Your task to perform on an android device: toggle wifi Image 0: 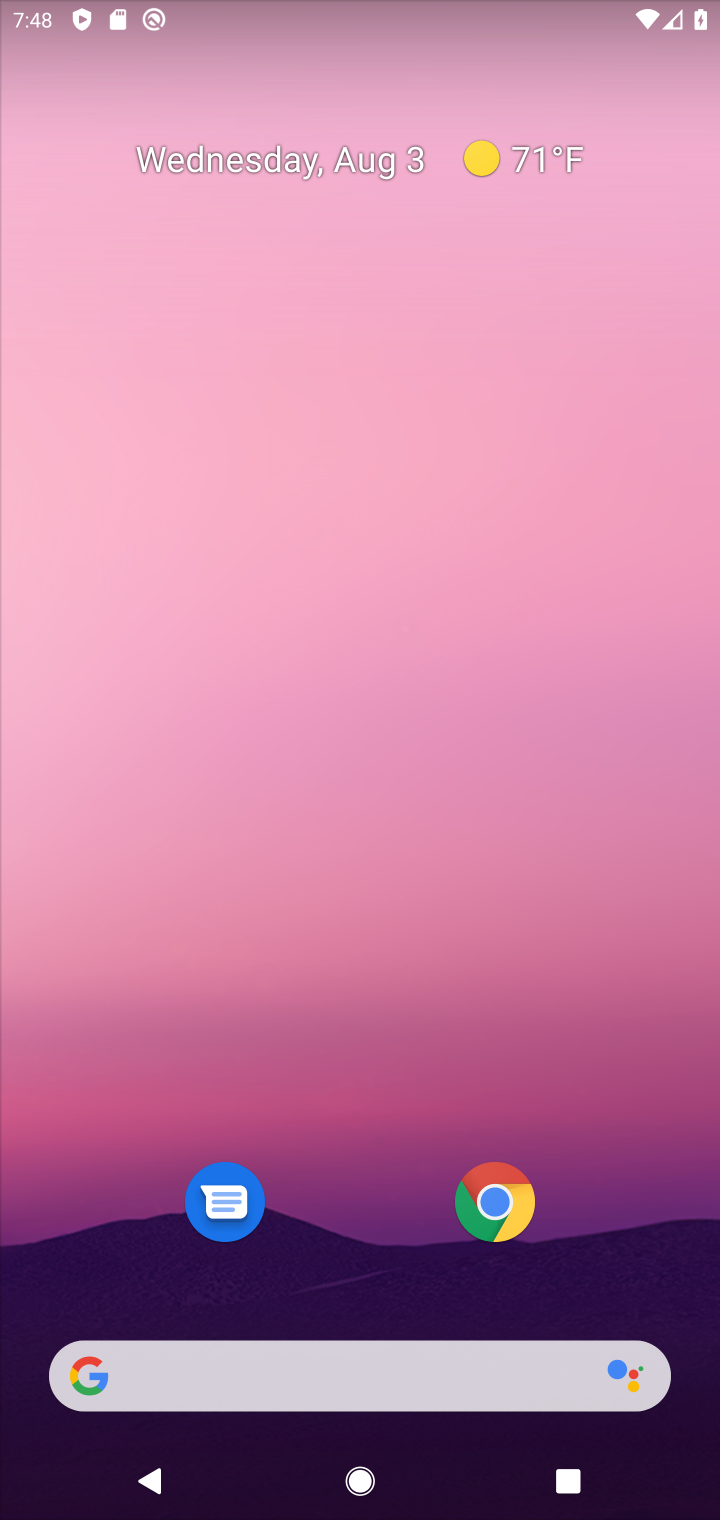
Step 0: drag from (302, 1400) to (283, 381)
Your task to perform on an android device: toggle wifi Image 1: 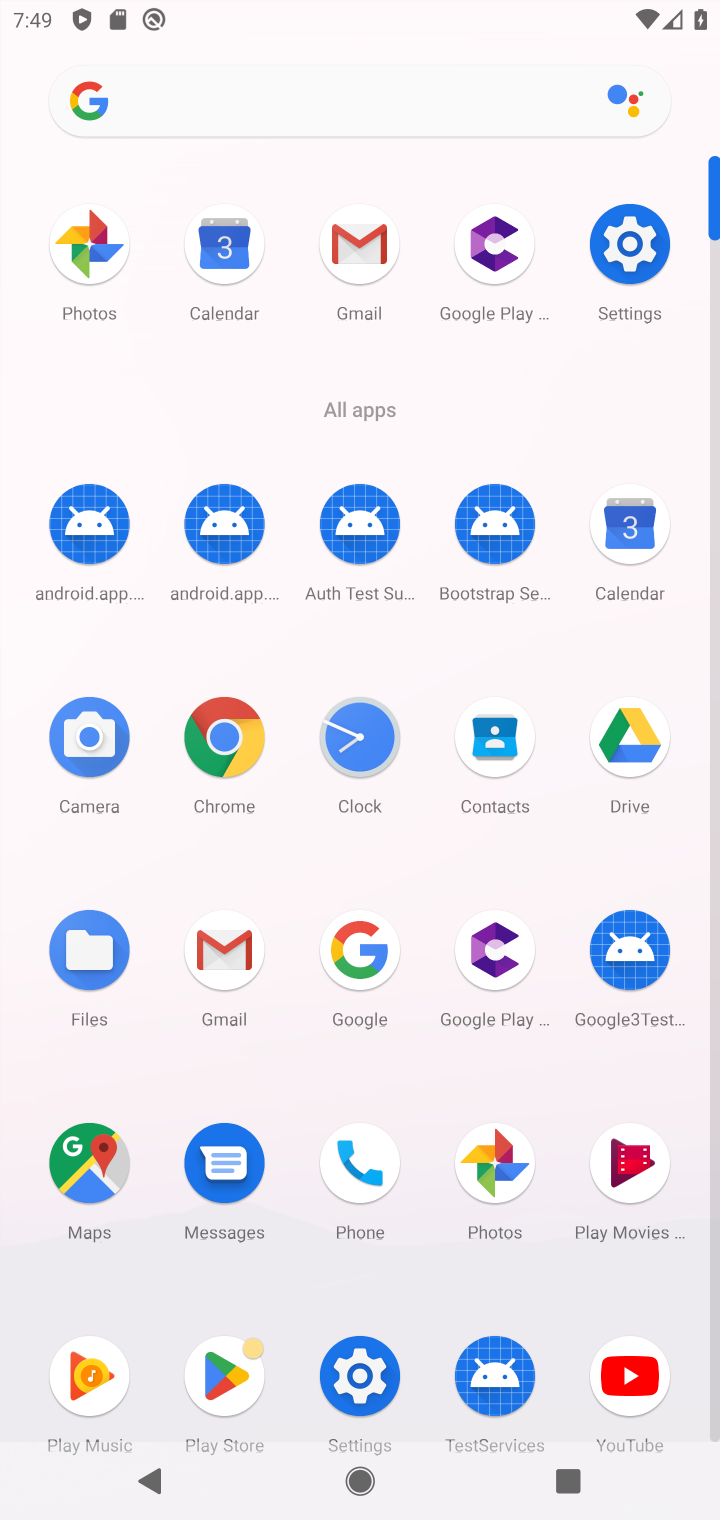
Step 1: click (631, 238)
Your task to perform on an android device: toggle wifi Image 2: 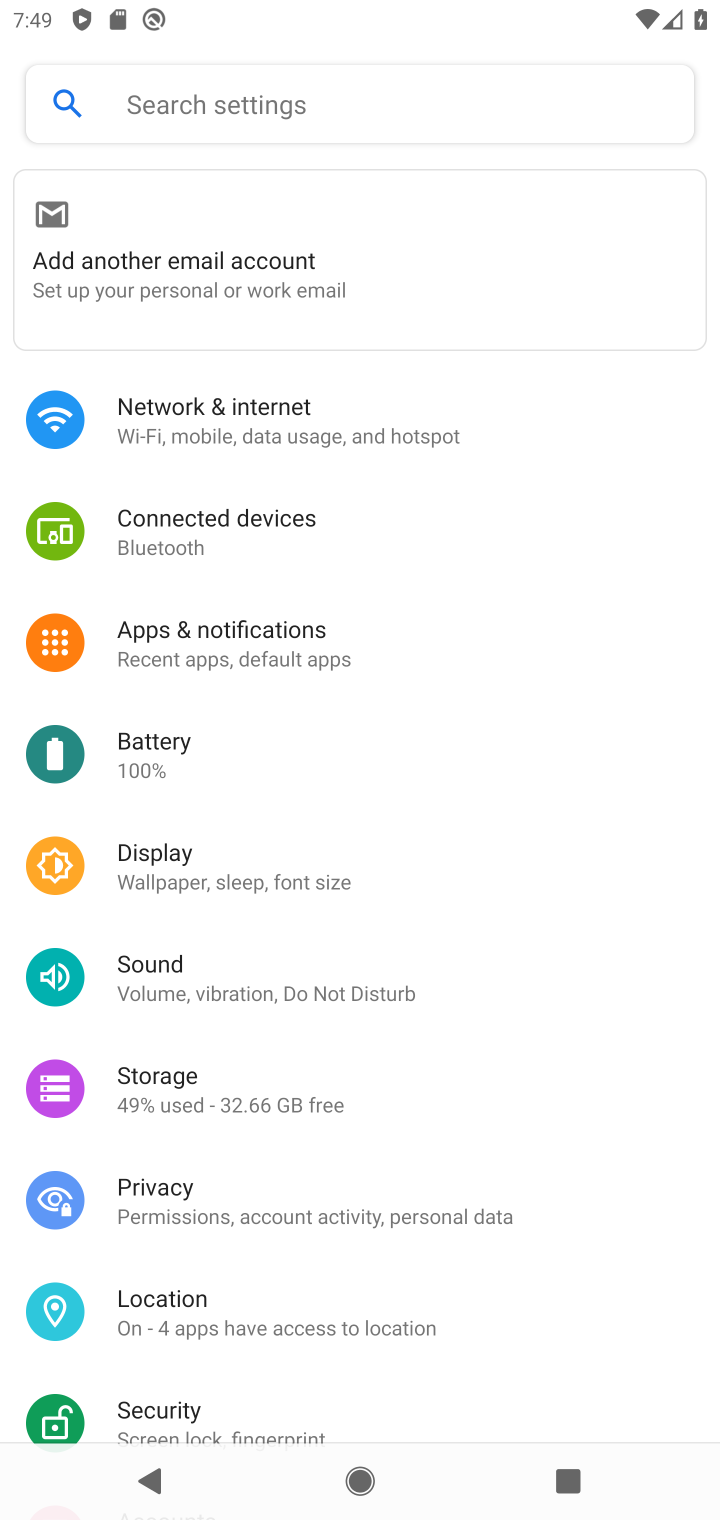
Step 2: click (260, 425)
Your task to perform on an android device: toggle wifi Image 3: 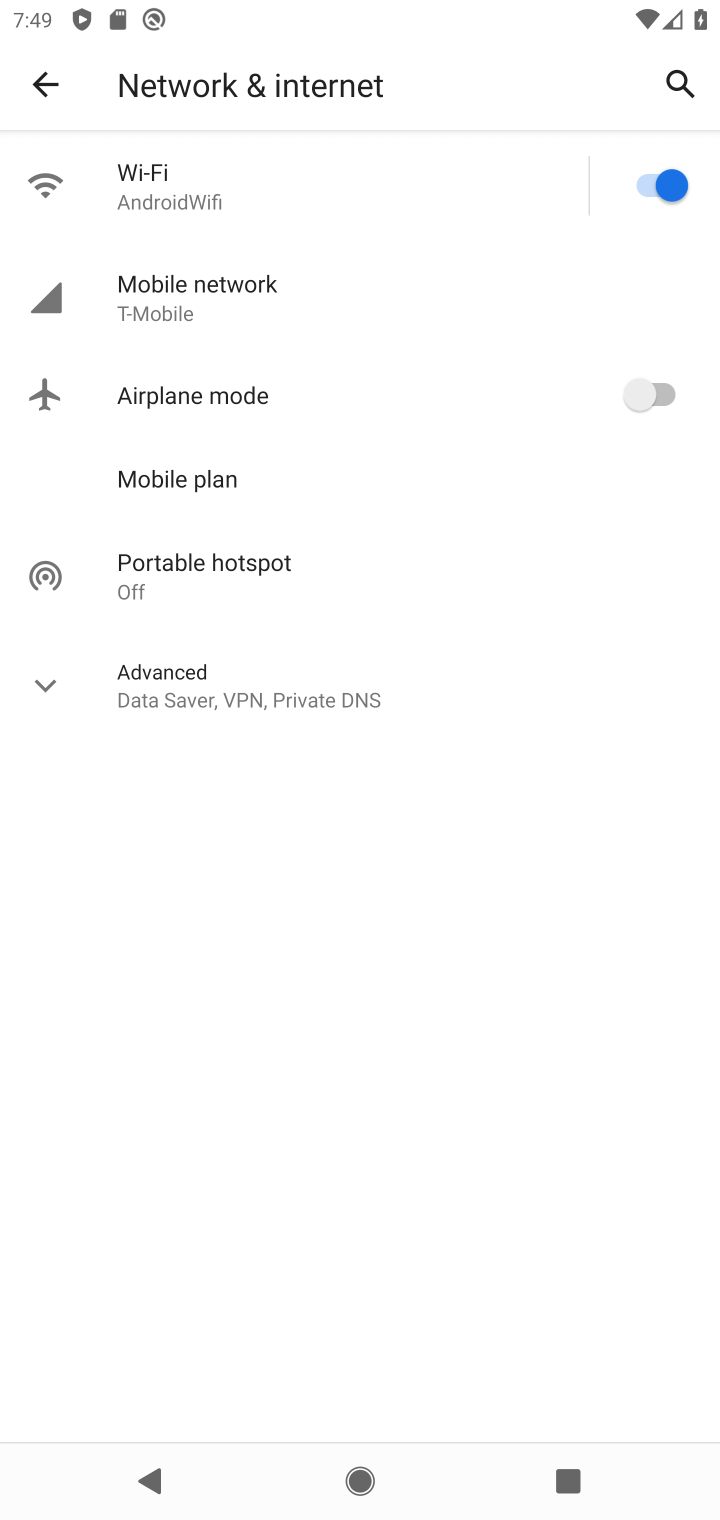
Step 3: click (643, 188)
Your task to perform on an android device: toggle wifi Image 4: 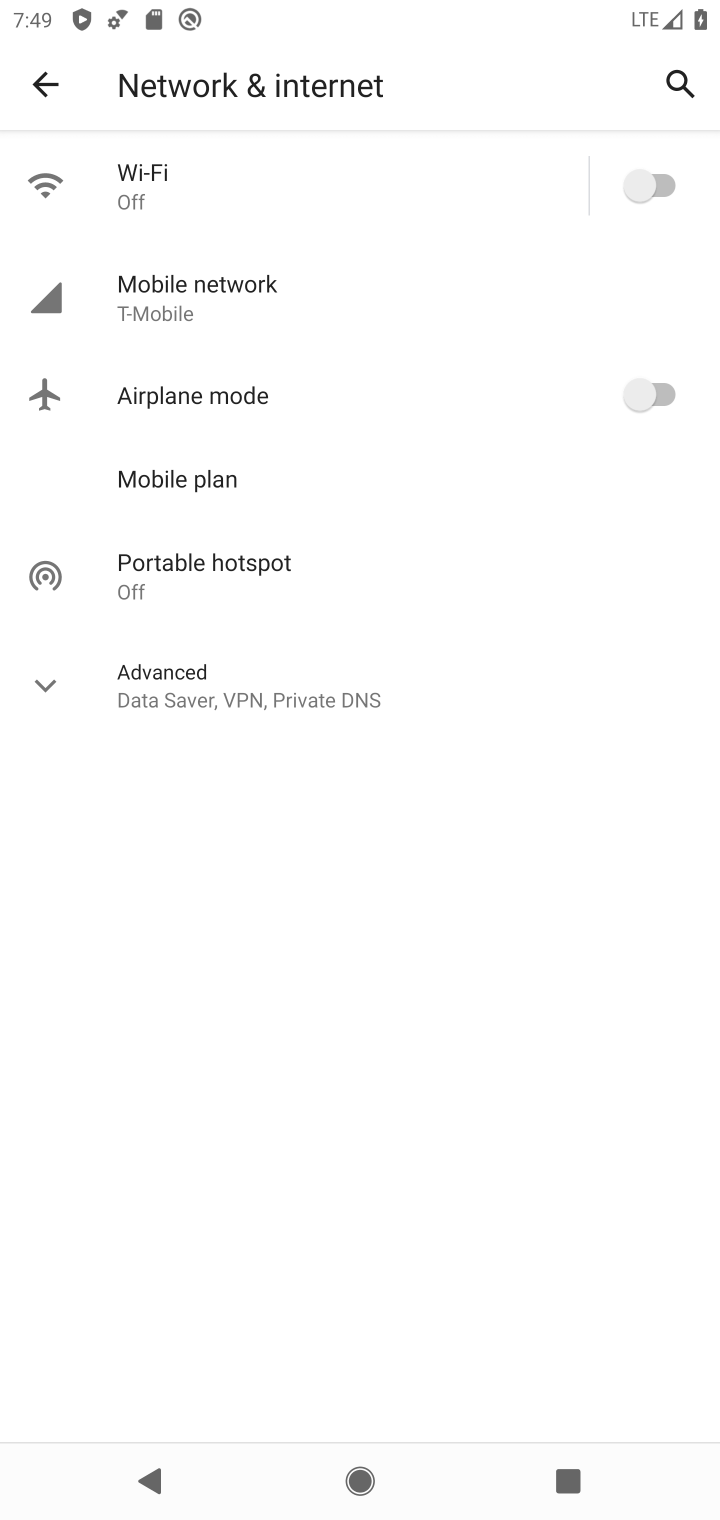
Step 4: task complete